Your task to perform on an android device: toggle pop-ups in chrome Image 0: 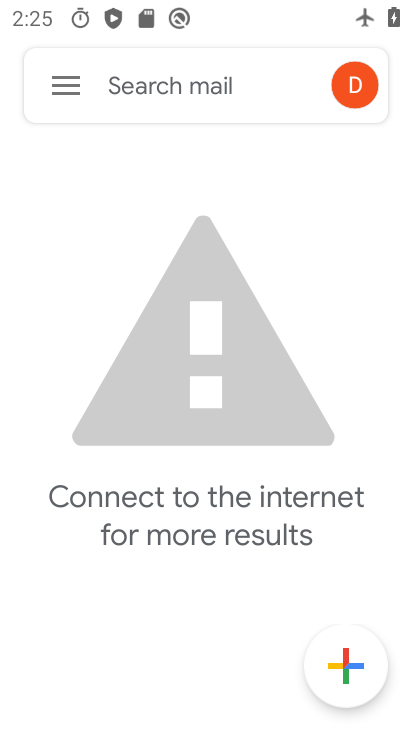
Step 0: press home button
Your task to perform on an android device: toggle pop-ups in chrome Image 1: 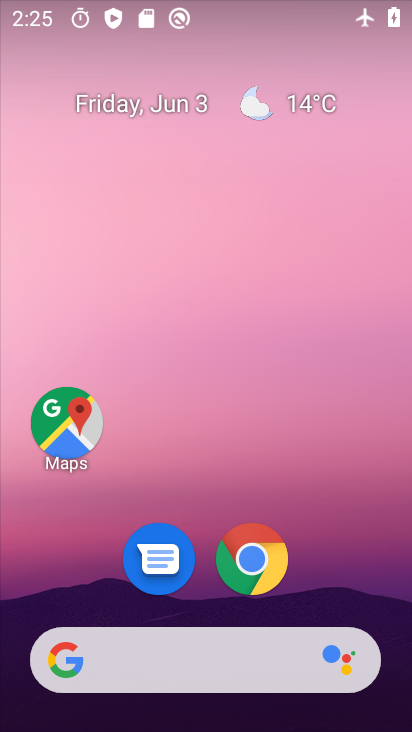
Step 1: drag from (237, 635) to (246, 1)
Your task to perform on an android device: toggle pop-ups in chrome Image 2: 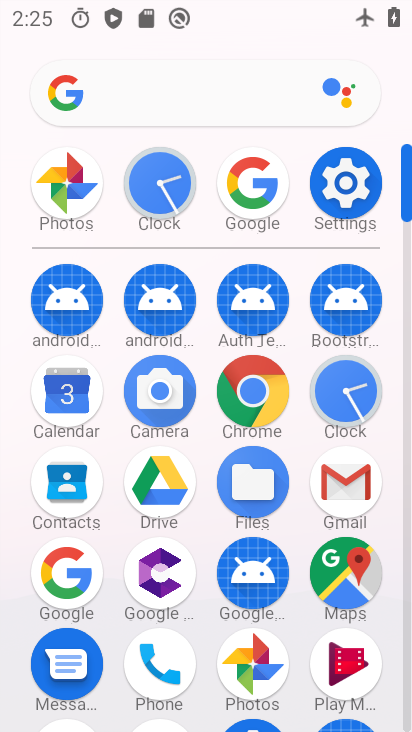
Step 2: click (287, 390)
Your task to perform on an android device: toggle pop-ups in chrome Image 3: 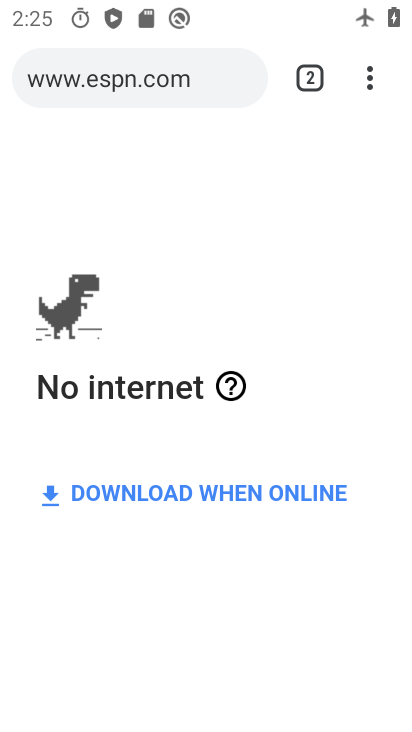
Step 3: click (379, 80)
Your task to perform on an android device: toggle pop-ups in chrome Image 4: 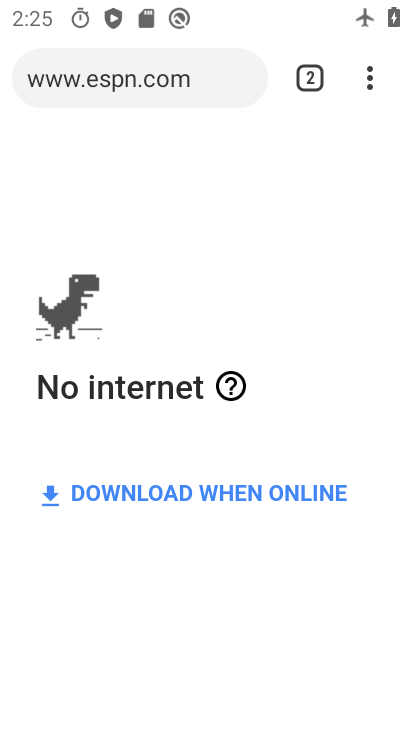
Step 4: click (370, 81)
Your task to perform on an android device: toggle pop-ups in chrome Image 5: 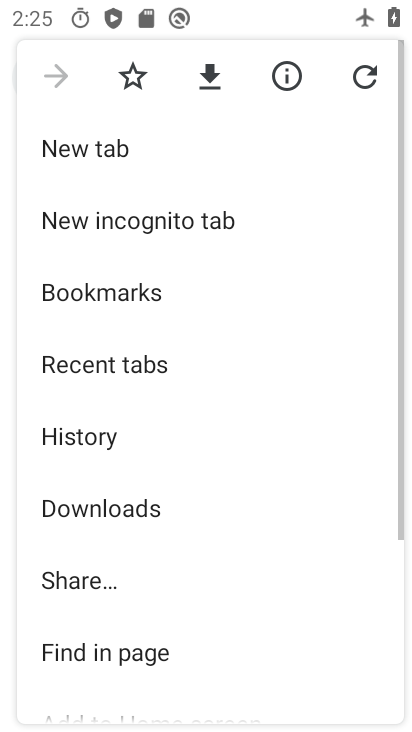
Step 5: drag from (90, 641) to (108, 122)
Your task to perform on an android device: toggle pop-ups in chrome Image 6: 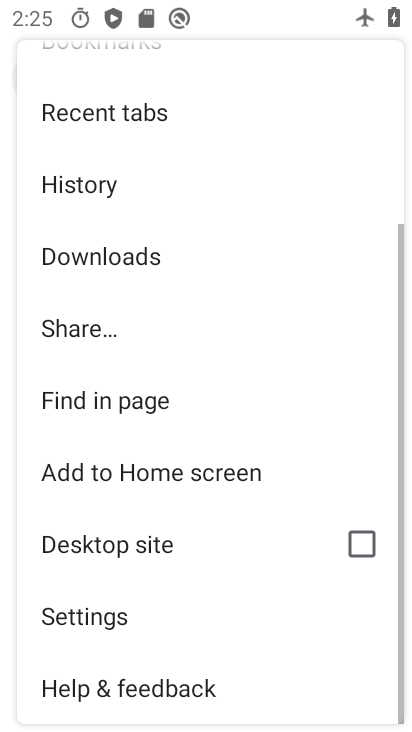
Step 6: click (106, 619)
Your task to perform on an android device: toggle pop-ups in chrome Image 7: 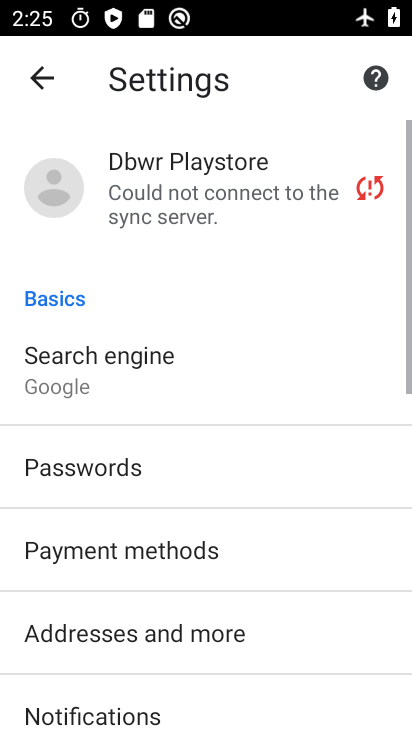
Step 7: drag from (106, 619) to (104, 124)
Your task to perform on an android device: toggle pop-ups in chrome Image 8: 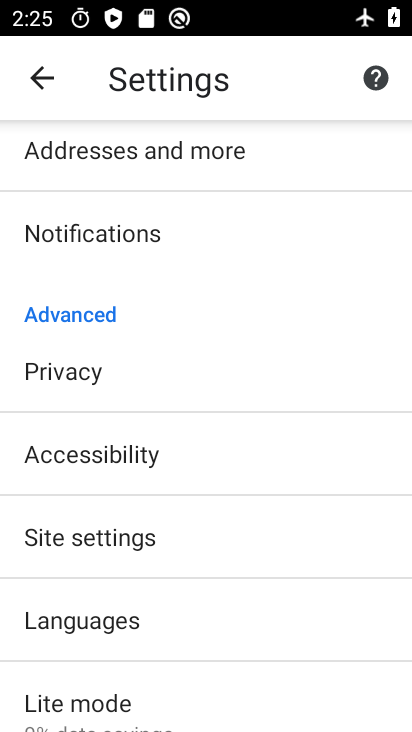
Step 8: click (144, 549)
Your task to perform on an android device: toggle pop-ups in chrome Image 9: 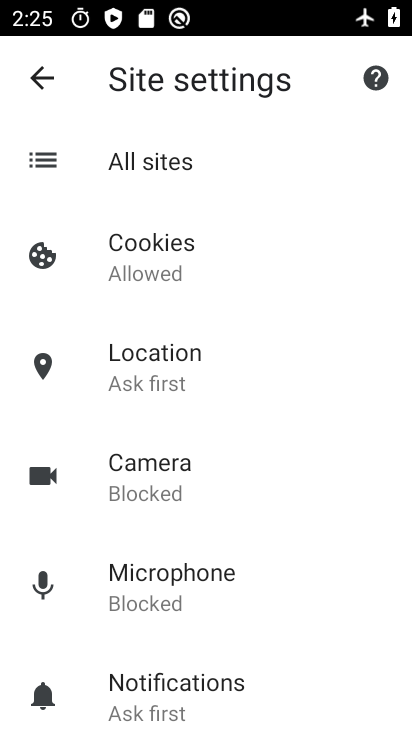
Step 9: drag from (220, 612) to (222, 233)
Your task to perform on an android device: toggle pop-ups in chrome Image 10: 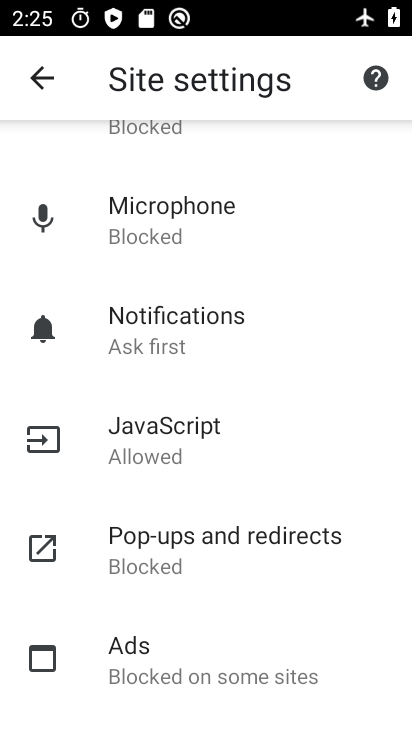
Step 10: click (193, 524)
Your task to perform on an android device: toggle pop-ups in chrome Image 11: 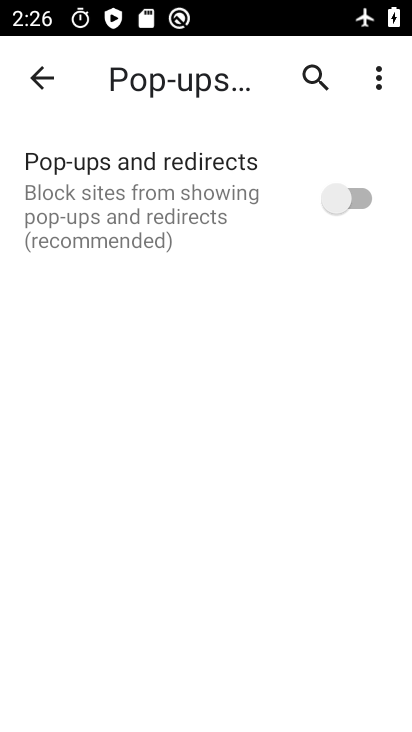
Step 11: click (344, 179)
Your task to perform on an android device: toggle pop-ups in chrome Image 12: 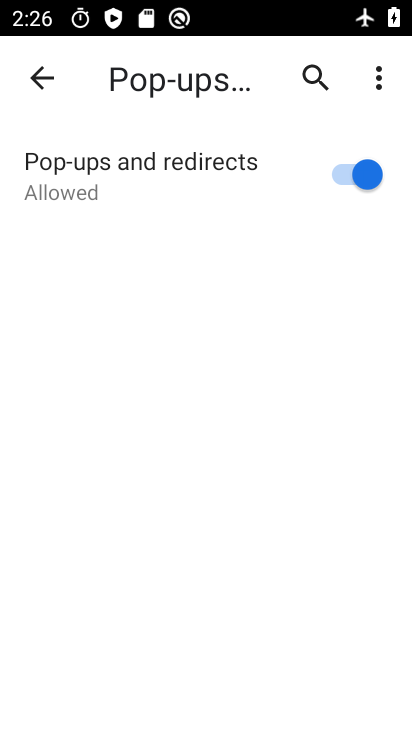
Step 12: task complete